Your task to perform on an android device: Open ESPN.com Image 0: 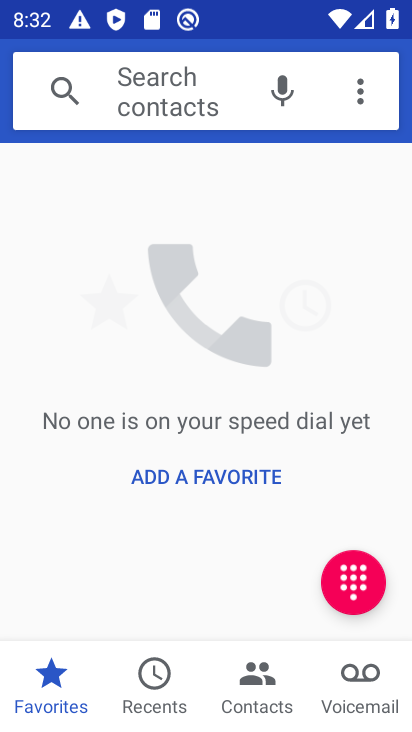
Step 0: press home button
Your task to perform on an android device: Open ESPN.com Image 1: 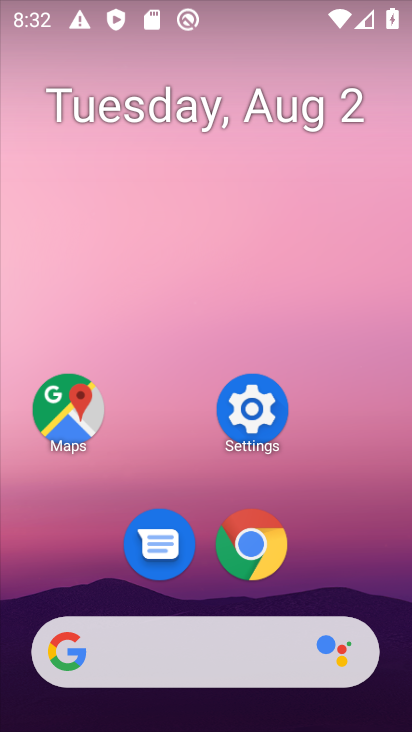
Step 1: click (249, 535)
Your task to perform on an android device: Open ESPN.com Image 2: 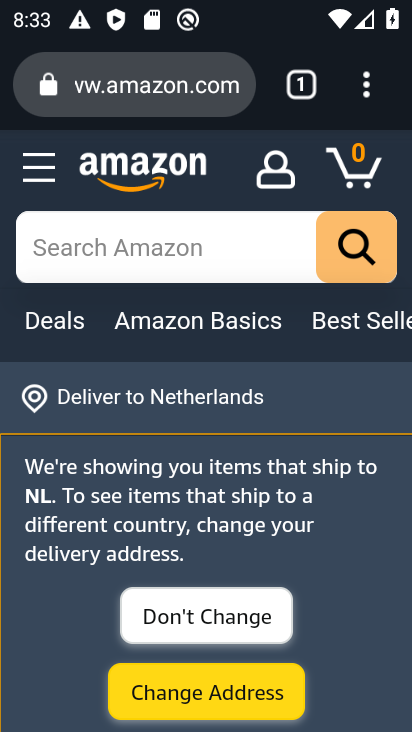
Step 2: drag from (369, 95) to (208, 167)
Your task to perform on an android device: Open ESPN.com Image 3: 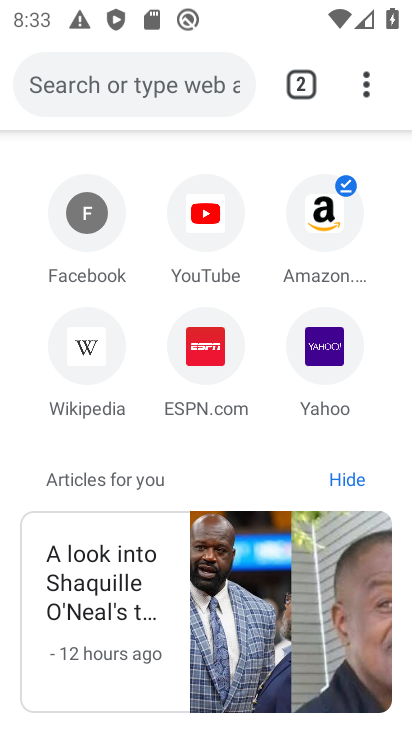
Step 3: click (212, 347)
Your task to perform on an android device: Open ESPN.com Image 4: 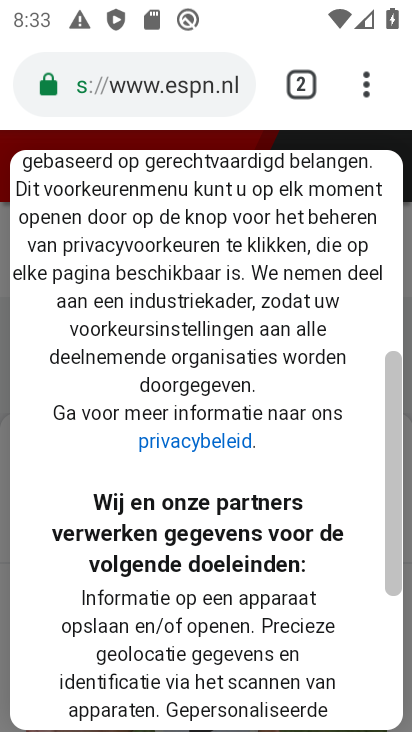
Step 4: drag from (254, 392) to (349, 178)
Your task to perform on an android device: Open ESPN.com Image 5: 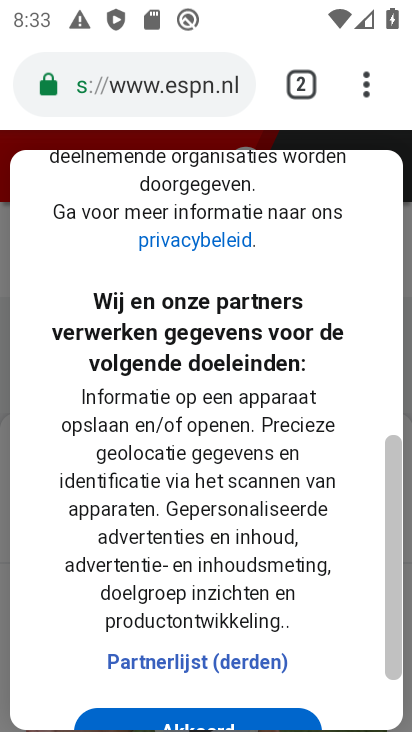
Step 5: drag from (282, 581) to (377, 183)
Your task to perform on an android device: Open ESPN.com Image 6: 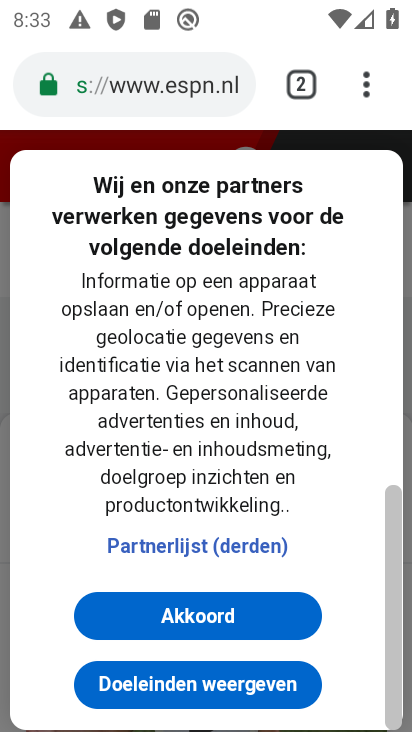
Step 6: click (212, 611)
Your task to perform on an android device: Open ESPN.com Image 7: 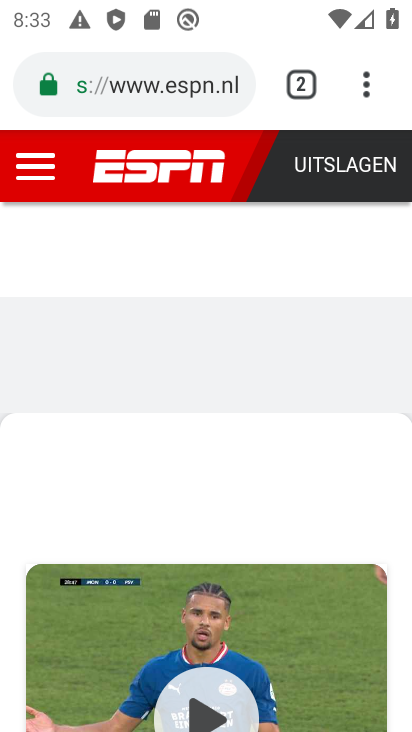
Step 7: task complete